Your task to perform on an android device: Open wifi settings Image 0: 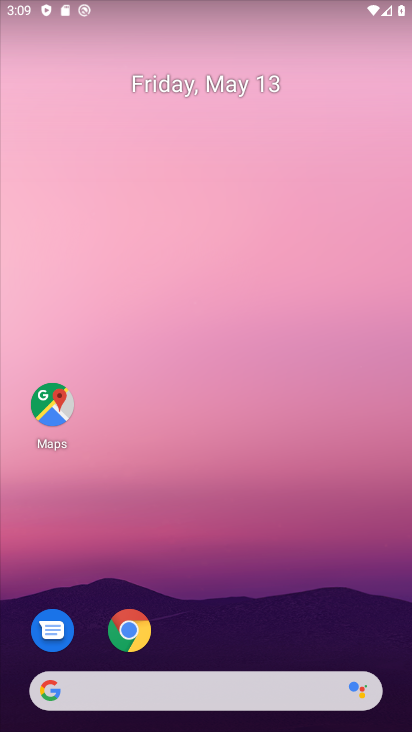
Step 0: drag from (152, 668) to (88, 75)
Your task to perform on an android device: Open wifi settings Image 1: 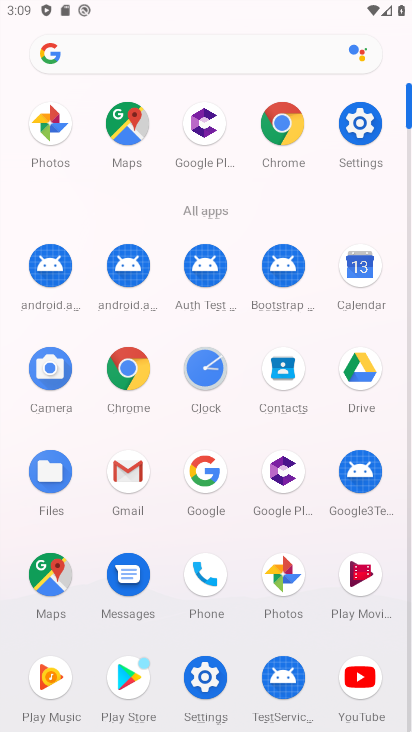
Step 1: click (190, 692)
Your task to perform on an android device: Open wifi settings Image 2: 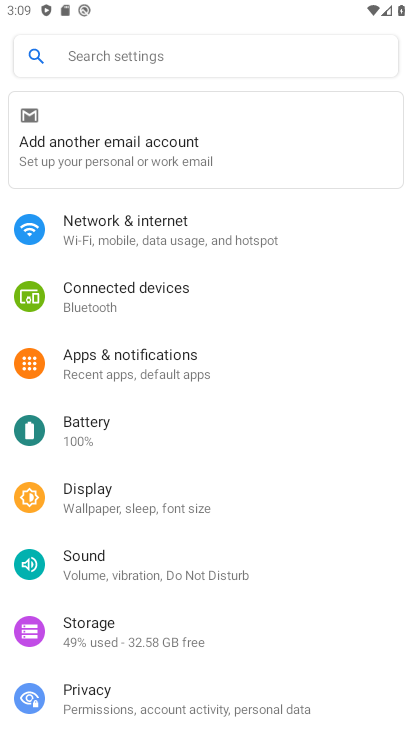
Step 2: click (131, 228)
Your task to perform on an android device: Open wifi settings Image 3: 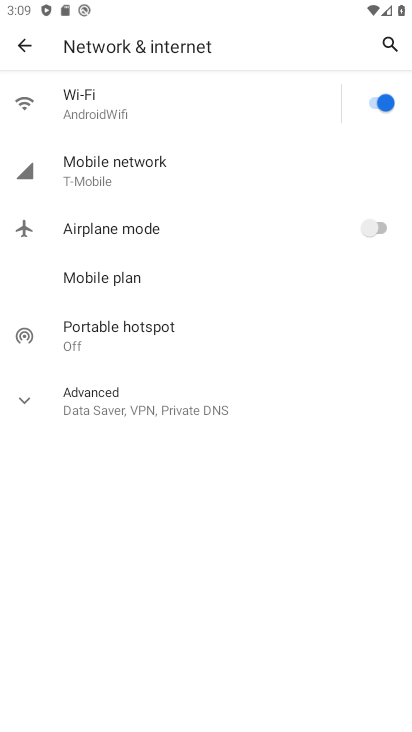
Step 3: click (137, 181)
Your task to perform on an android device: Open wifi settings Image 4: 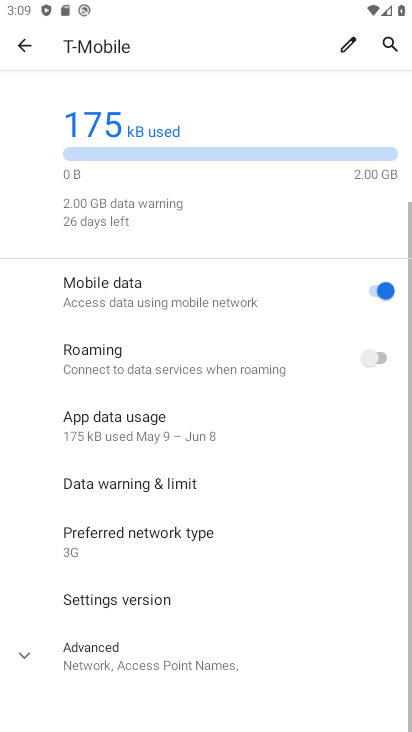
Step 4: click (22, 46)
Your task to perform on an android device: Open wifi settings Image 5: 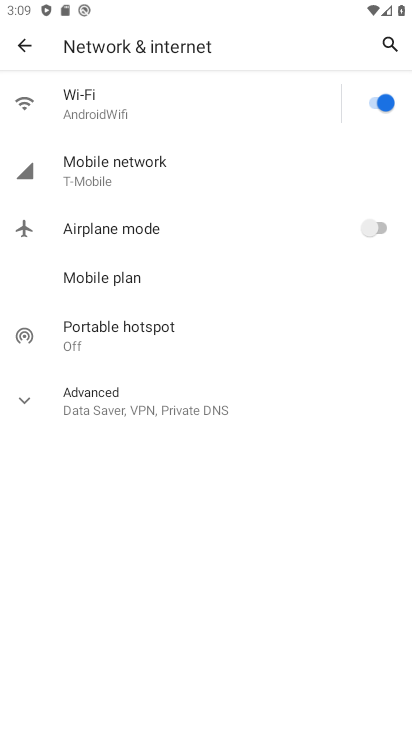
Step 5: click (129, 108)
Your task to perform on an android device: Open wifi settings Image 6: 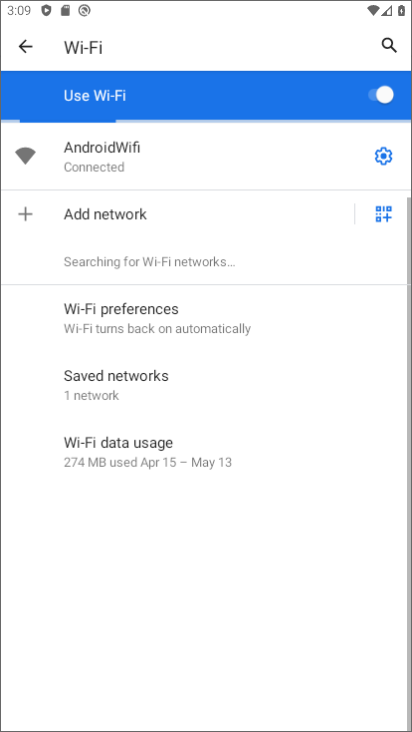
Step 6: task complete